Your task to perform on an android device: change notification settings in the gmail app Image 0: 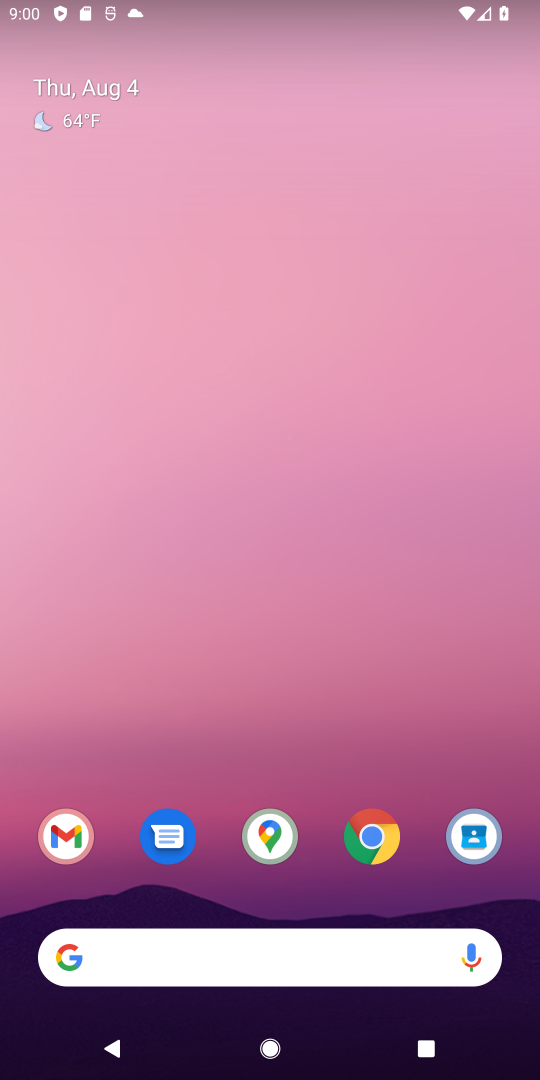
Step 0: press back button
Your task to perform on an android device: change notification settings in the gmail app Image 1: 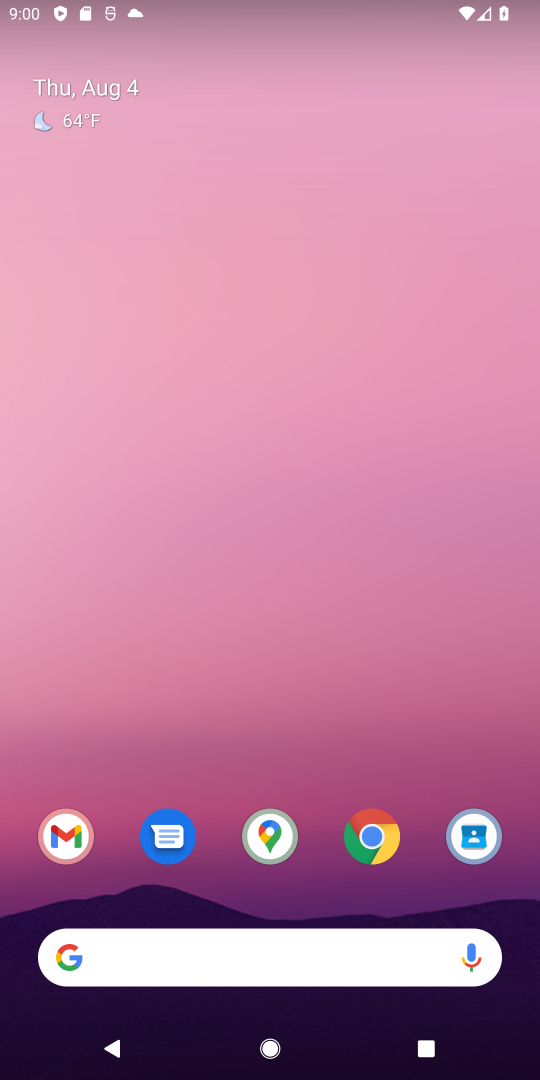
Step 1: press back button
Your task to perform on an android device: change notification settings in the gmail app Image 2: 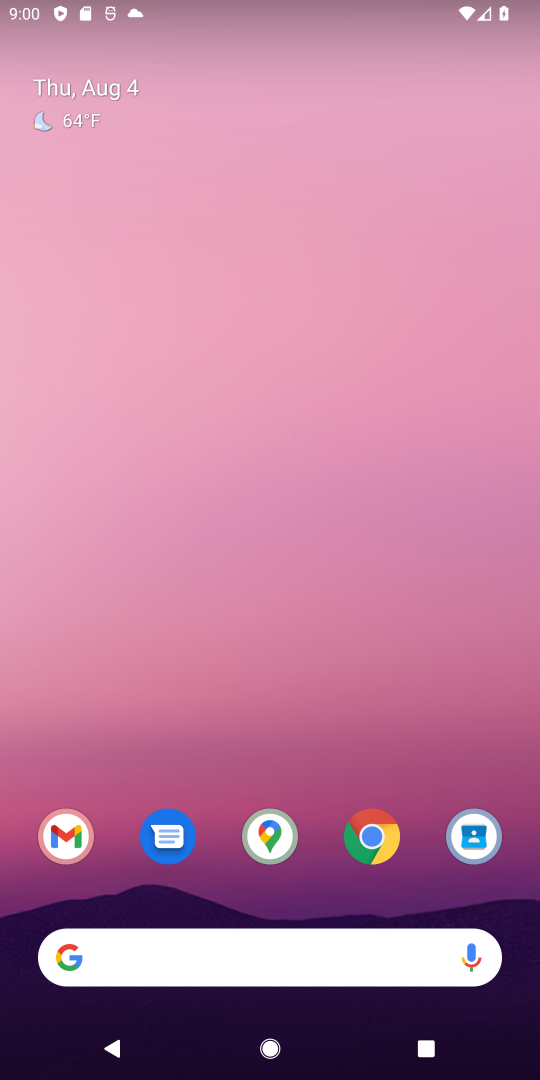
Step 2: click (53, 827)
Your task to perform on an android device: change notification settings in the gmail app Image 3: 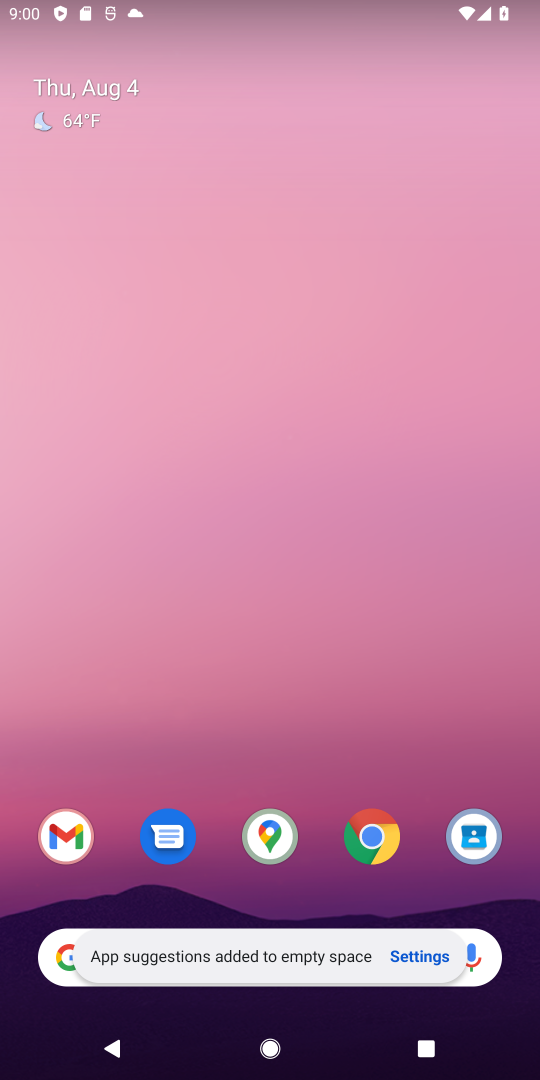
Step 3: click (70, 847)
Your task to perform on an android device: change notification settings in the gmail app Image 4: 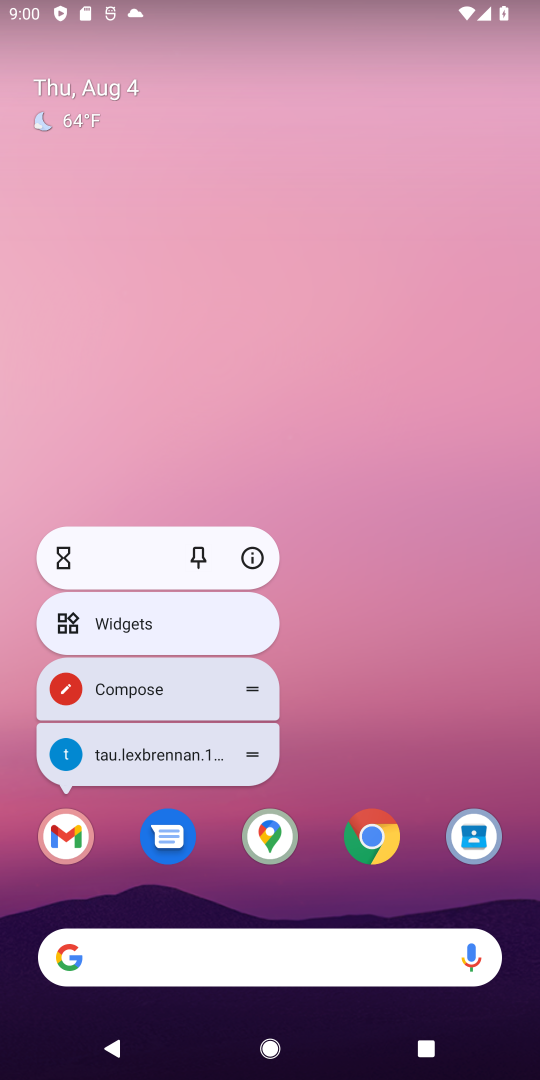
Step 4: click (253, 561)
Your task to perform on an android device: change notification settings in the gmail app Image 5: 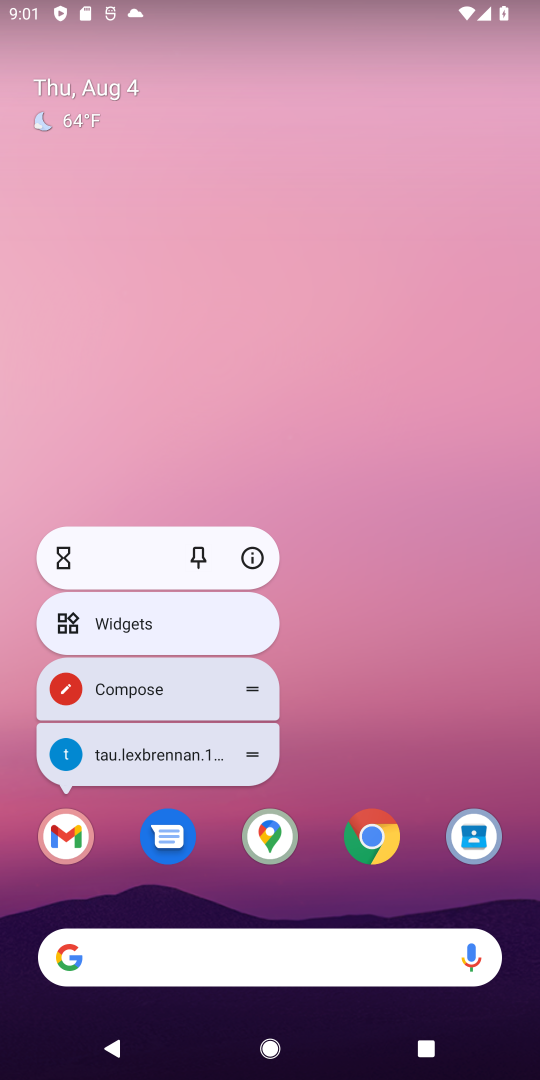
Step 5: click (243, 558)
Your task to perform on an android device: change notification settings in the gmail app Image 6: 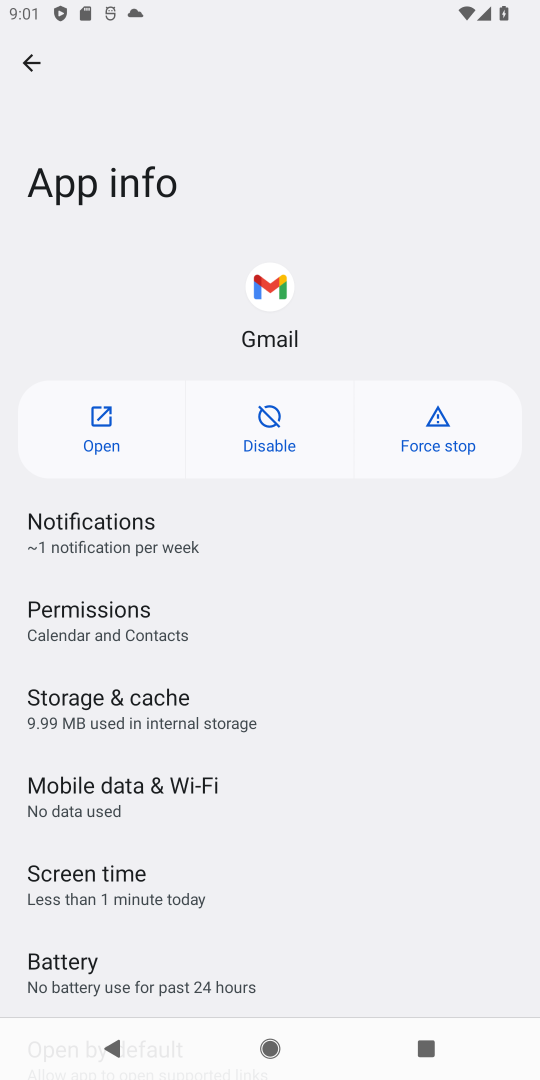
Step 6: click (150, 526)
Your task to perform on an android device: change notification settings in the gmail app Image 7: 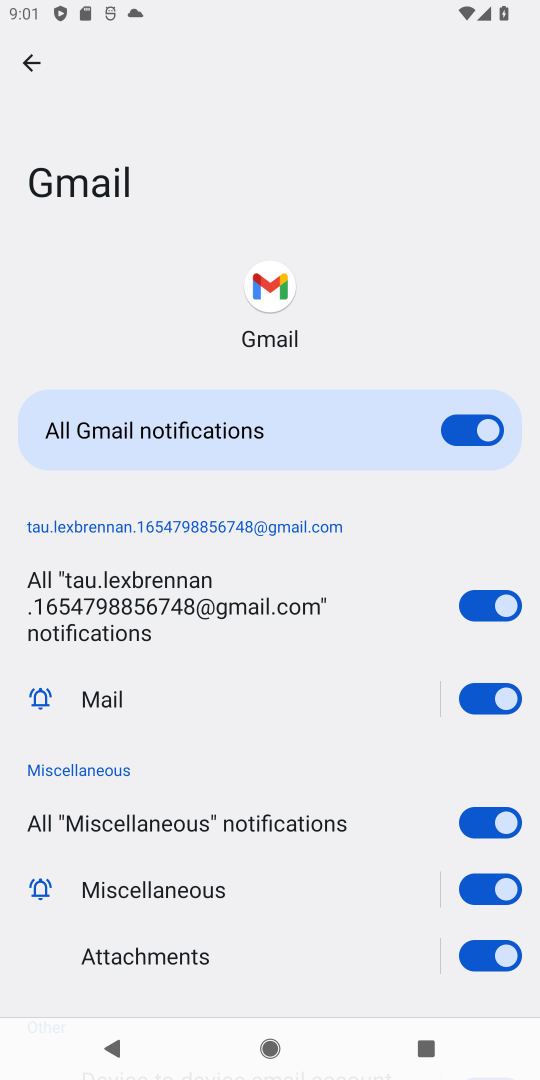
Step 7: click (492, 693)
Your task to perform on an android device: change notification settings in the gmail app Image 8: 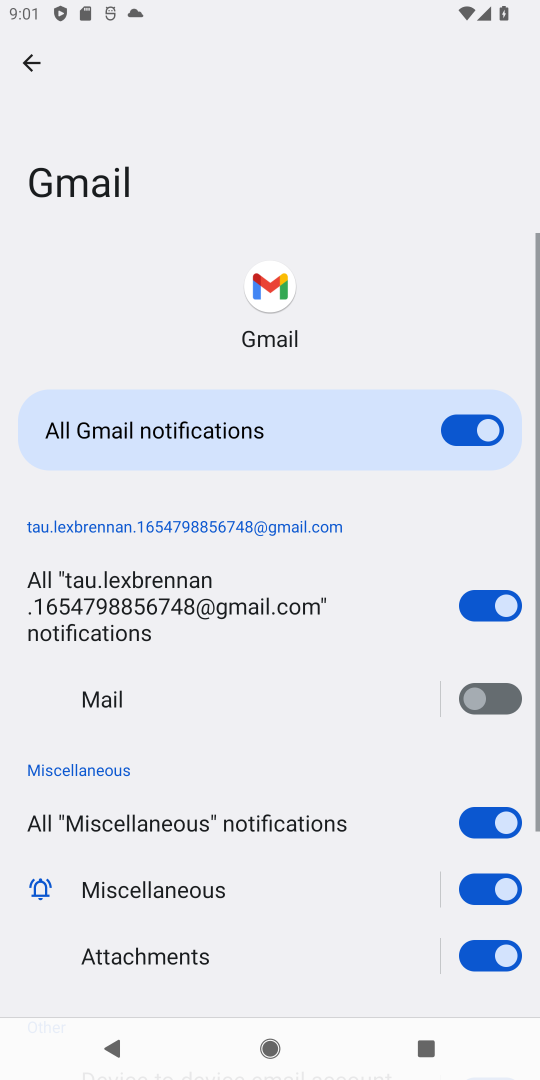
Step 8: task complete